Your task to perform on an android device: Show me the alarms in the clock app Image 0: 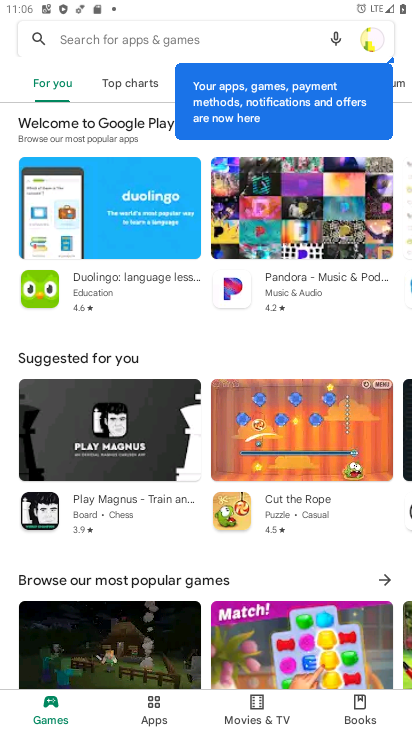
Step 0: press home button
Your task to perform on an android device: Show me the alarms in the clock app Image 1: 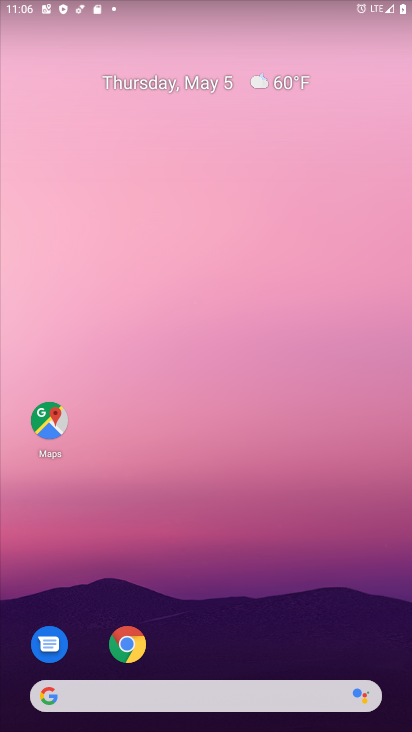
Step 1: drag from (325, 602) to (332, 168)
Your task to perform on an android device: Show me the alarms in the clock app Image 2: 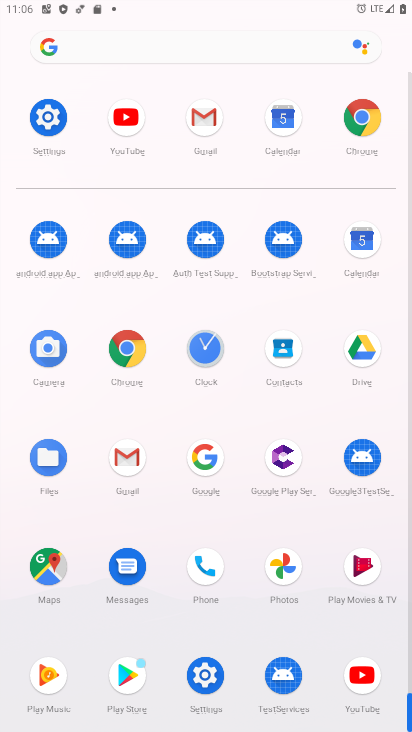
Step 2: click (195, 354)
Your task to perform on an android device: Show me the alarms in the clock app Image 3: 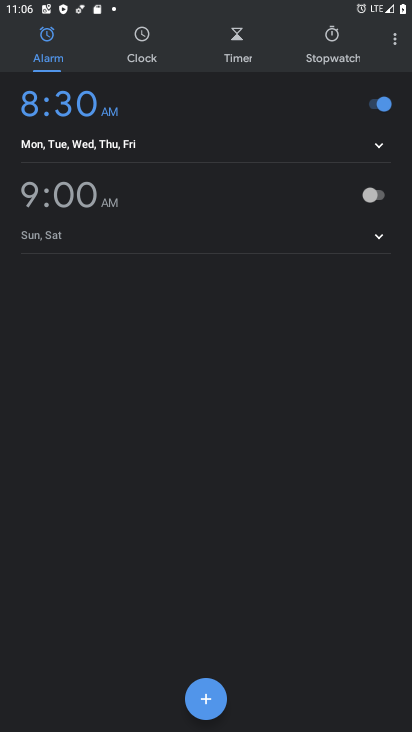
Step 3: task complete